Your task to perform on an android device: change keyboard looks Image 0: 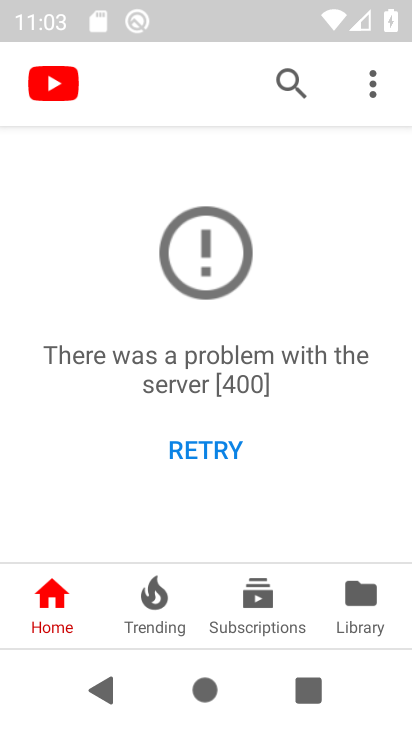
Step 0: press home button
Your task to perform on an android device: change keyboard looks Image 1: 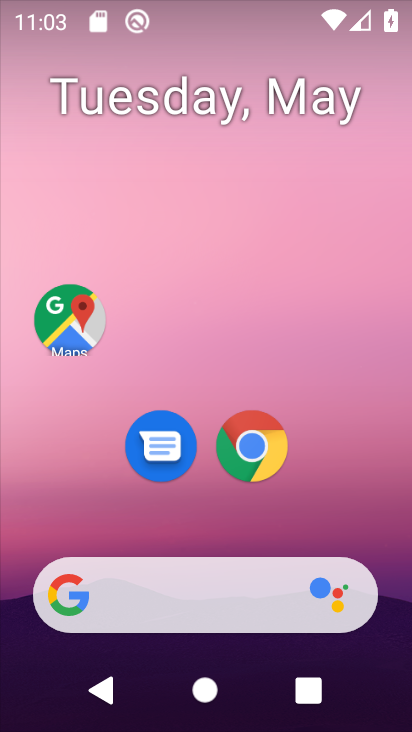
Step 1: drag from (311, 500) to (282, 121)
Your task to perform on an android device: change keyboard looks Image 2: 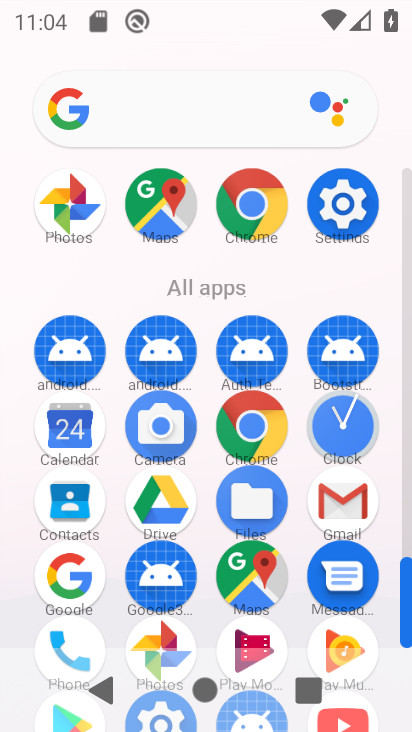
Step 2: click (342, 205)
Your task to perform on an android device: change keyboard looks Image 3: 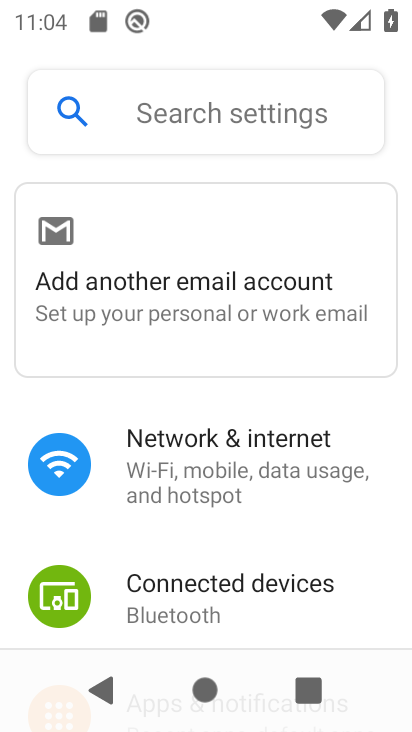
Step 3: drag from (177, 547) to (240, 423)
Your task to perform on an android device: change keyboard looks Image 4: 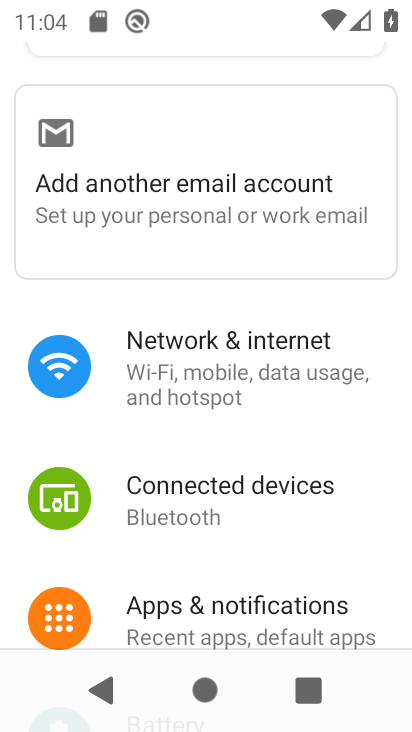
Step 4: drag from (163, 545) to (246, 439)
Your task to perform on an android device: change keyboard looks Image 5: 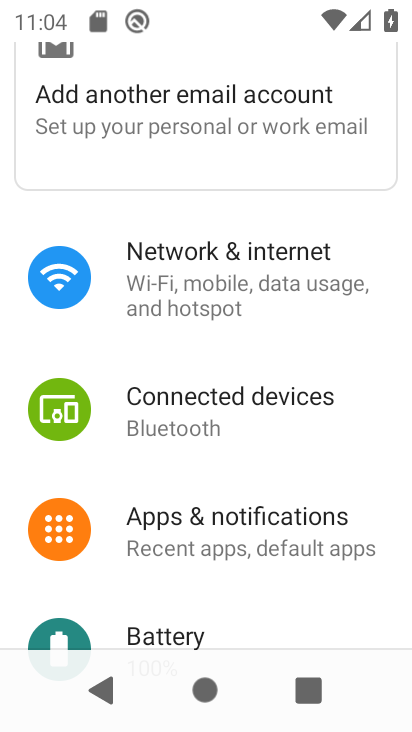
Step 5: drag from (155, 484) to (246, 370)
Your task to perform on an android device: change keyboard looks Image 6: 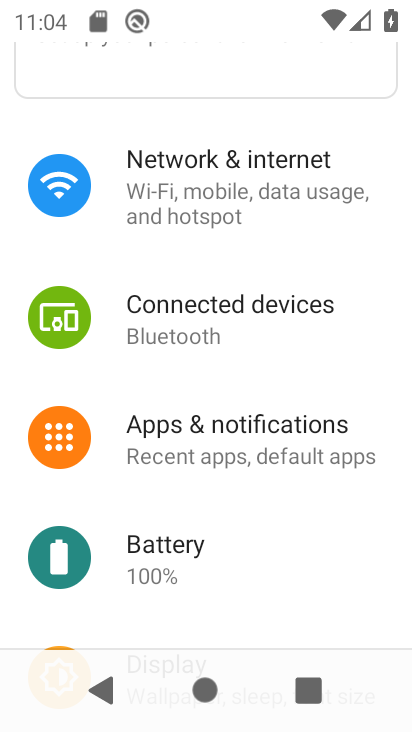
Step 6: drag from (149, 505) to (245, 382)
Your task to perform on an android device: change keyboard looks Image 7: 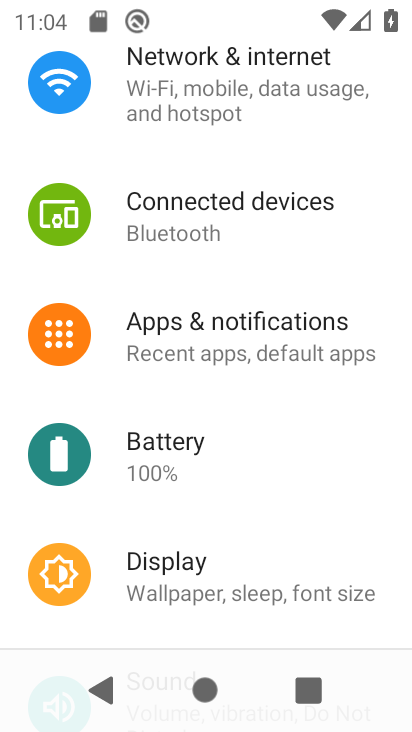
Step 7: drag from (147, 495) to (245, 371)
Your task to perform on an android device: change keyboard looks Image 8: 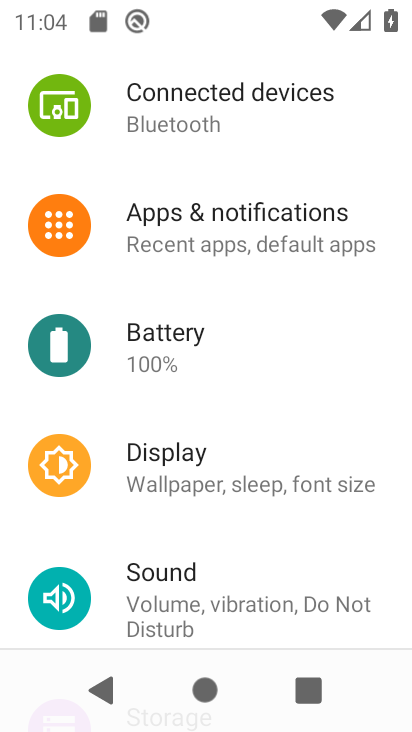
Step 8: drag from (138, 520) to (234, 381)
Your task to perform on an android device: change keyboard looks Image 9: 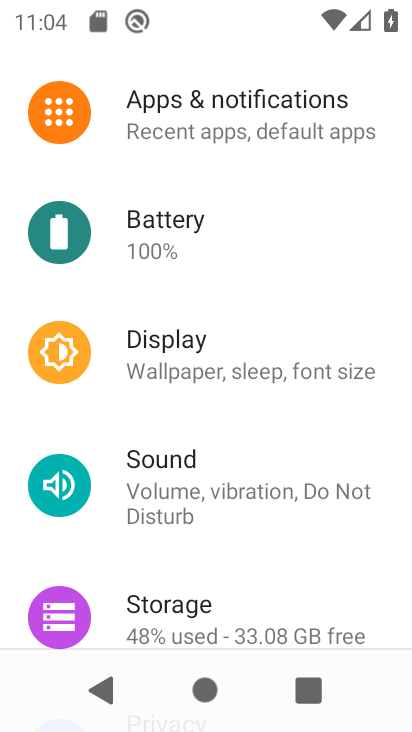
Step 9: drag from (137, 424) to (207, 316)
Your task to perform on an android device: change keyboard looks Image 10: 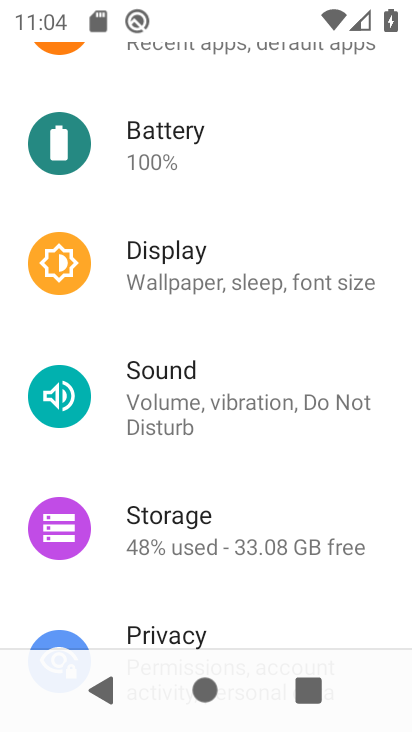
Step 10: drag from (118, 469) to (225, 347)
Your task to perform on an android device: change keyboard looks Image 11: 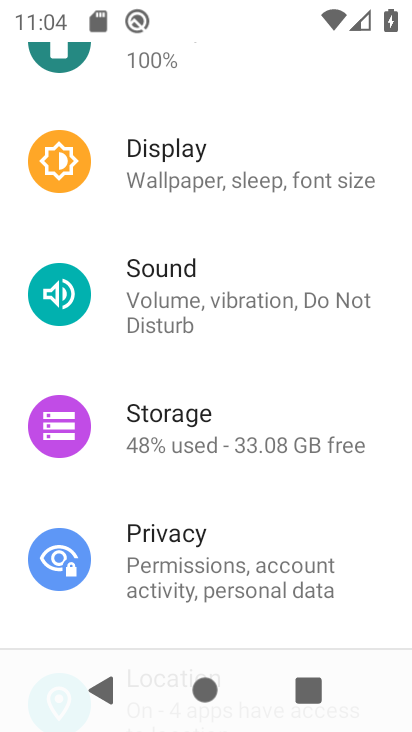
Step 11: drag from (119, 494) to (230, 369)
Your task to perform on an android device: change keyboard looks Image 12: 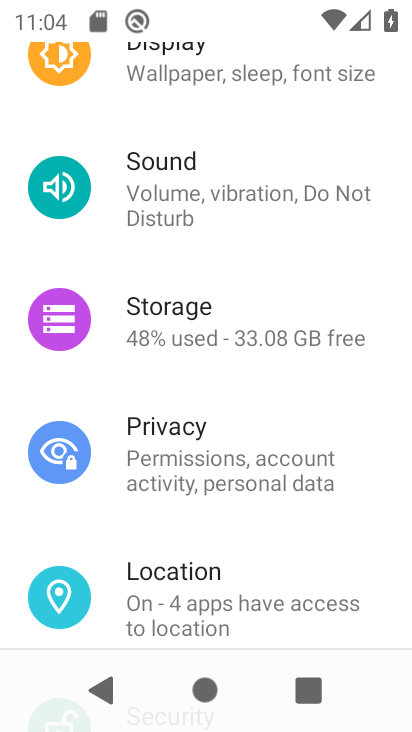
Step 12: drag from (96, 395) to (194, 245)
Your task to perform on an android device: change keyboard looks Image 13: 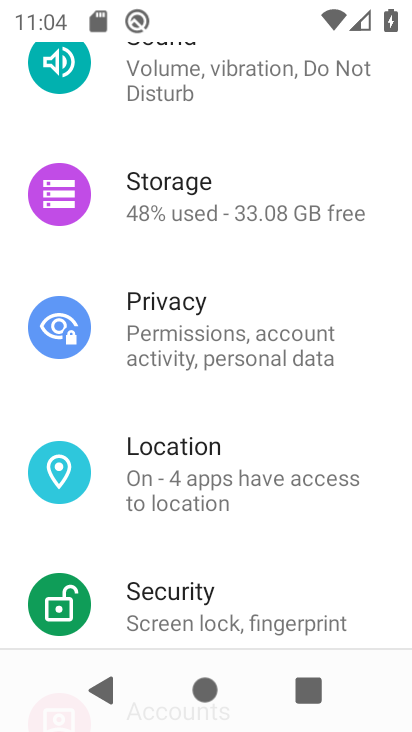
Step 13: drag from (97, 406) to (202, 284)
Your task to perform on an android device: change keyboard looks Image 14: 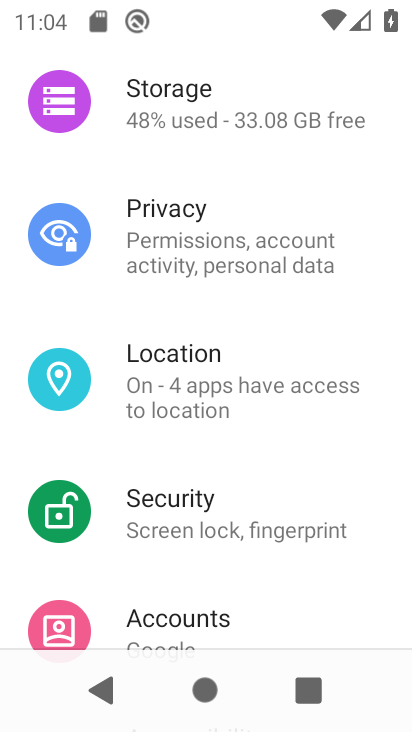
Step 14: drag from (79, 457) to (183, 320)
Your task to perform on an android device: change keyboard looks Image 15: 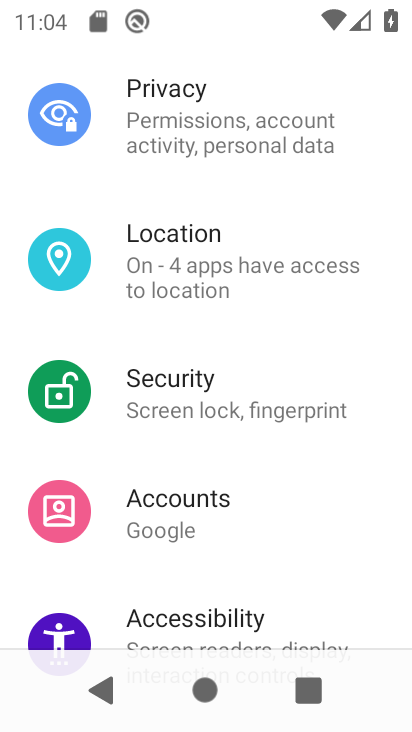
Step 15: drag from (79, 446) to (220, 294)
Your task to perform on an android device: change keyboard looks Image 16: 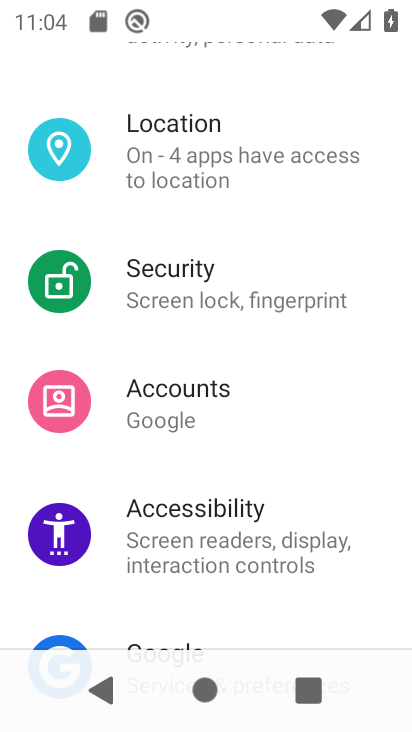
Step 16: drag from (70, 350) to (165, 215)
Your task to perform on an android device: change keyboard looks Image 17: 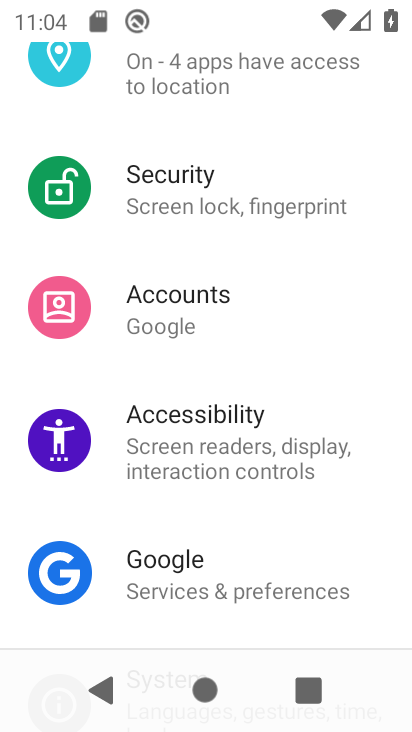
Step 17: drag from (66, 359) to (185, 224)
Your task to perform on an android device: change keyboard looks Image 18: 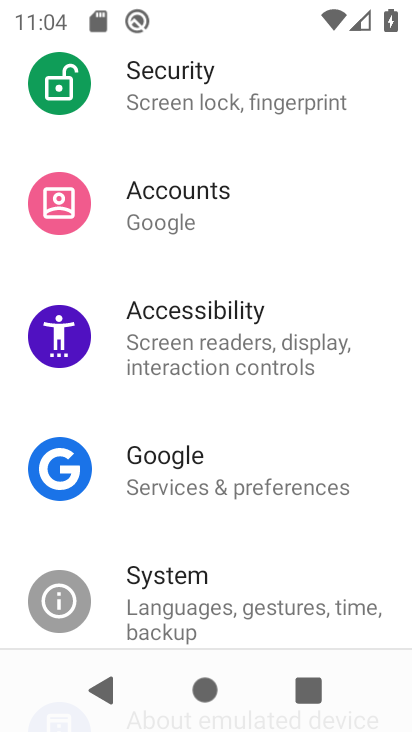
Step 18: drag from (50, 393) to (185, 245)
Your task to perform on an android device: change keyboard looks Image 19: 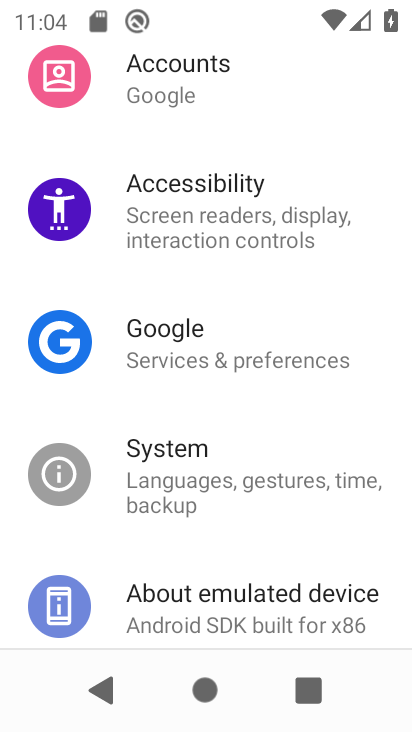
Step 19: click (183, 463)
Your task to perform on an android device: change keyboard looks Image 20: 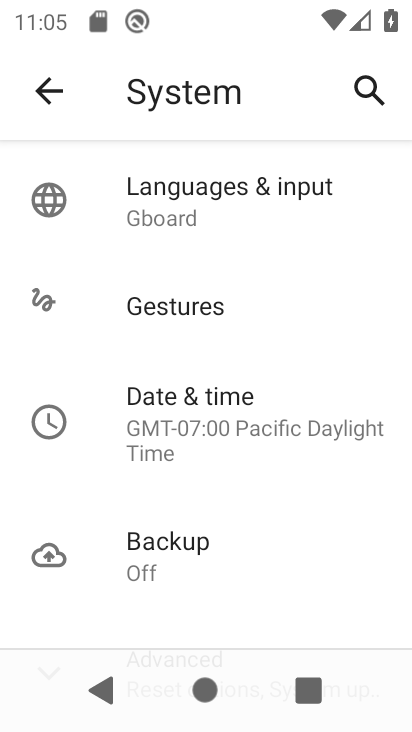
Step 20: click (216, 187)
Your task to perform on an android device: change keyboard looks Image 21: 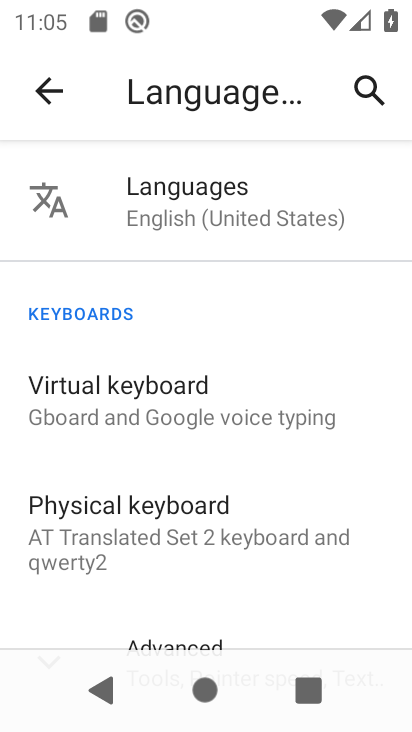
Step 21: click (149, 396)
Your task to perform on an android device: change keyboard looks Image 22: 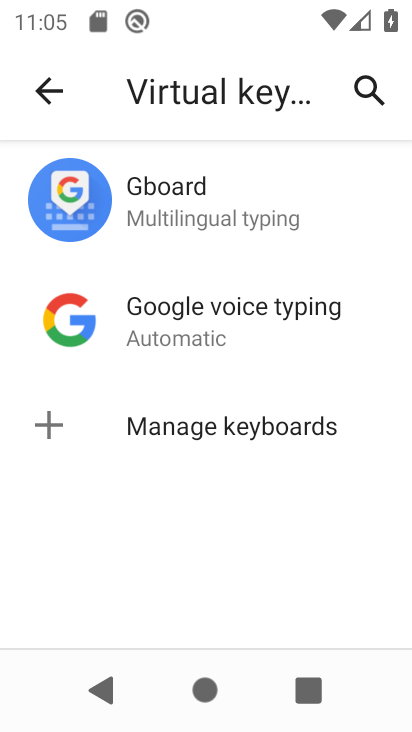
Step 22: click (188, 221)
Your task to perform on an android device: change keyboard looks Image 23: 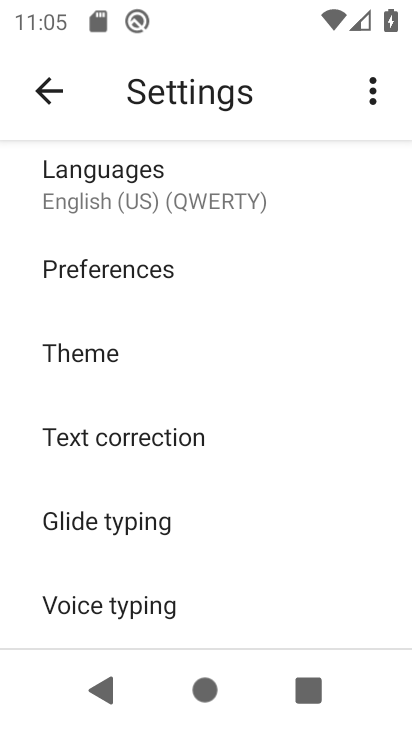
Step 23: click (112, 360)
Your task to perform on an android device: change keyboard looks Image 24: 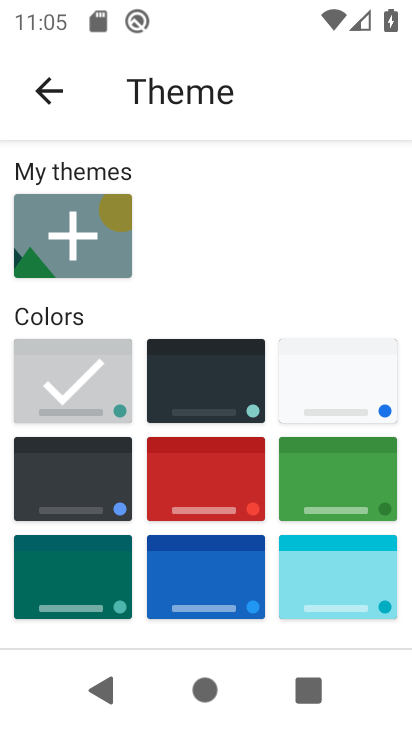
Step 24: drag from (205, 574) to (239, 450)
Your task to perform on an android device: change keyboard looks Image 25: 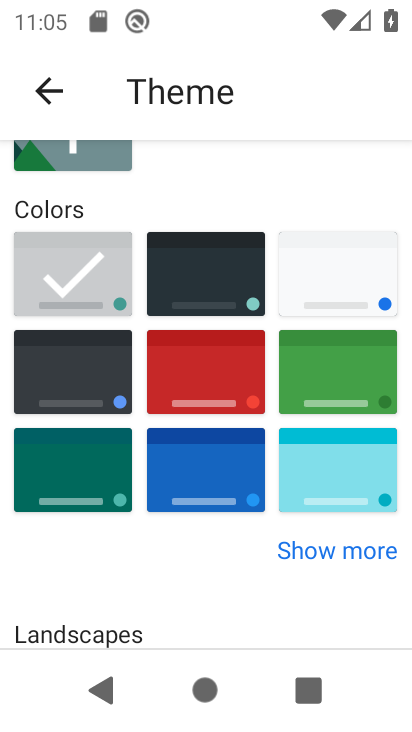
Step 25: click (314, 473)
Your task to perform on an android device: change keyboard looks Image 26: 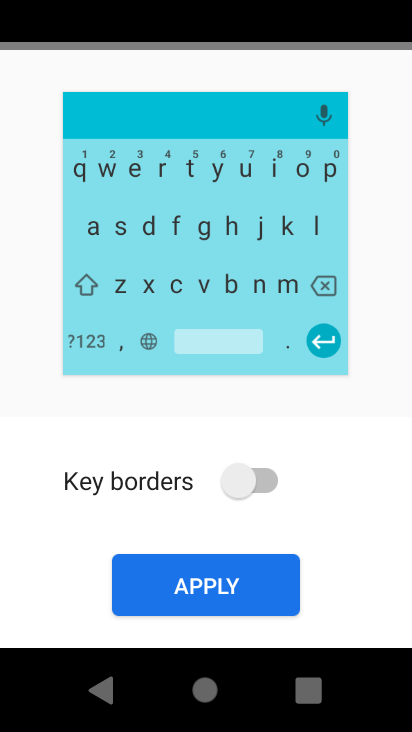
Step 26: click (241, 484)
Your task to perform on an android device: change keyboard looks Image 27: 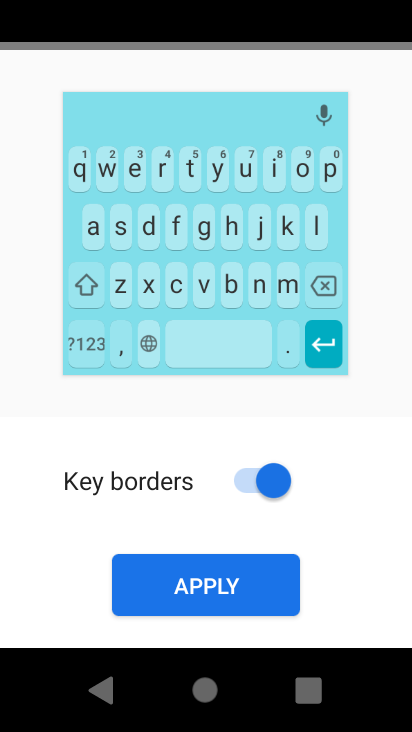
Step 27: click (193, 585)
Your task to perform on an android device: change keyboard looks Image 28: 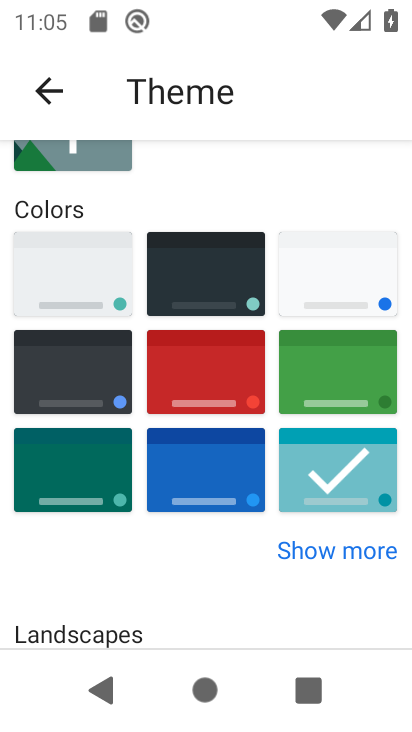
Step 28: task complete